Your task to perform on an android device: change the clock display to digital Image 0: 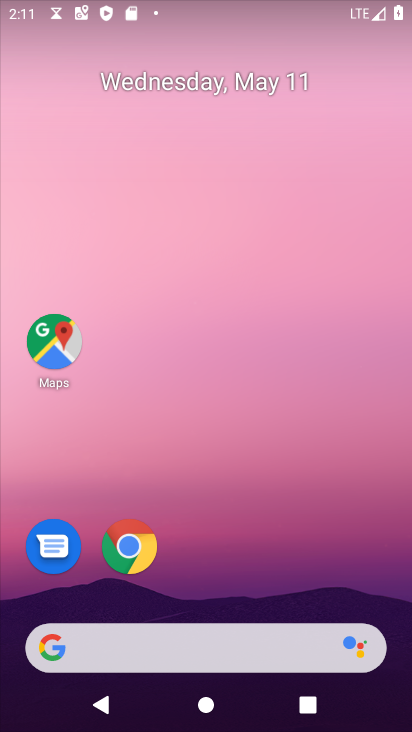
Step 0: drag from (319, 650) to (255, 26)
Your task to perform on an android device: change the clock display to digital Image 1: 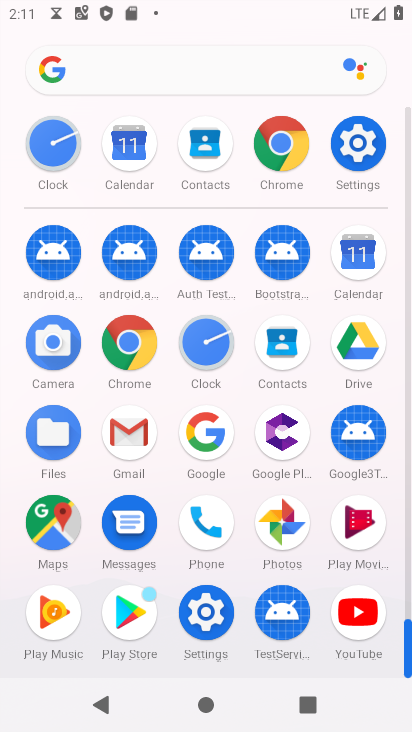
Step 1: click (200, 352)
Your task to perform on an android device: change the clock display to digital Image 2: 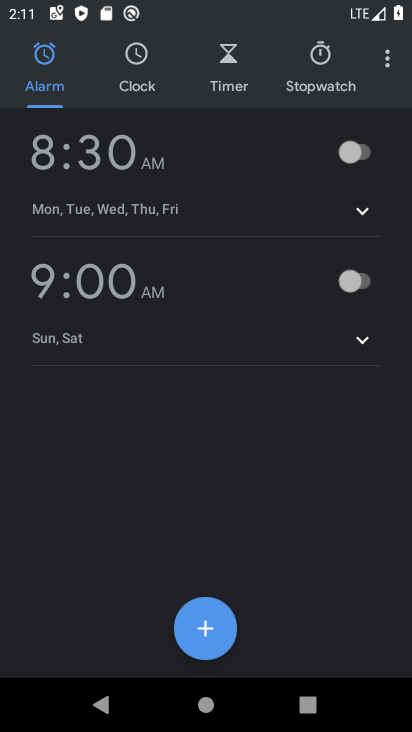
Step 2: click (386, 51)
Your task to perform on an android device: change the clock display to digital Image 3: 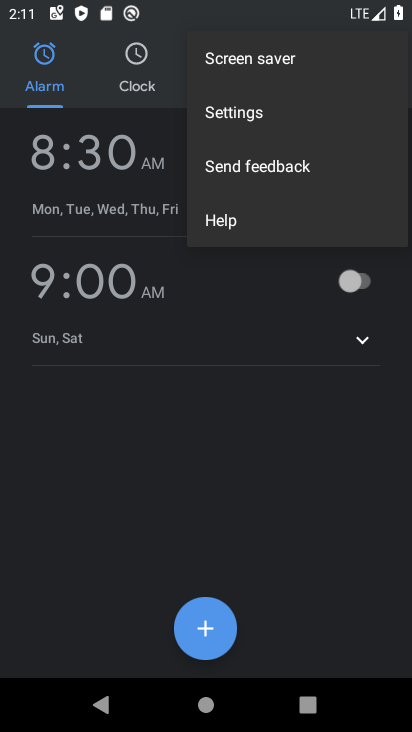
Step 3: task complete